Your task to perform on an android device: What's the weather today? Image 0: 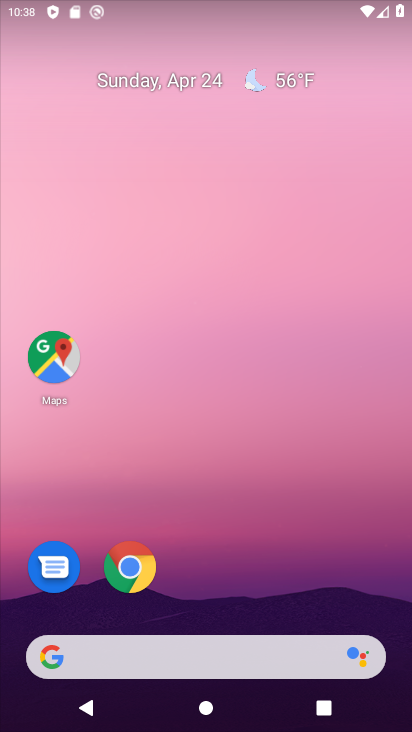
Step 0: click (289, 71)
Your task to perform on an android device: What's the weather today? Image 1: 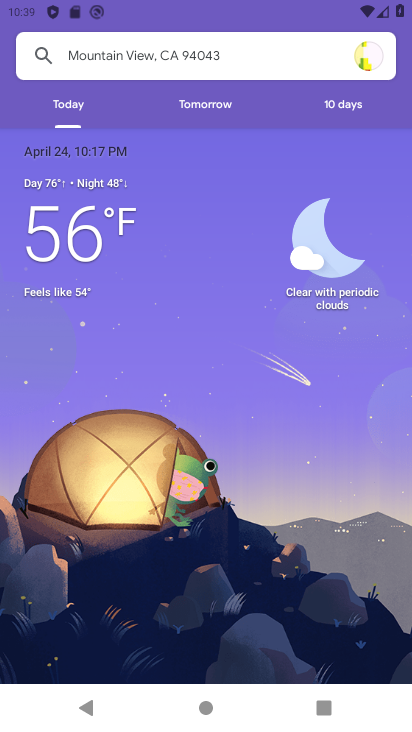
Step 1: task complete